Your task to perform on an android device: Show me popular videos on Youtube Image 0: 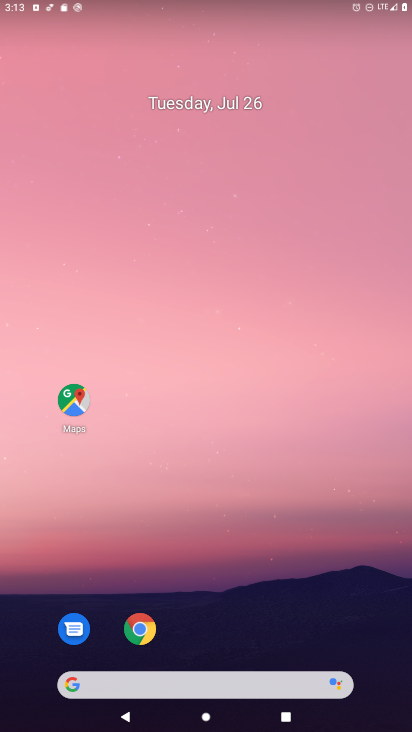
Step 0: drag from (385, 691) to (351, 90)
Your task to perform on an android device: Show me popular videos on Youtube Image 1: 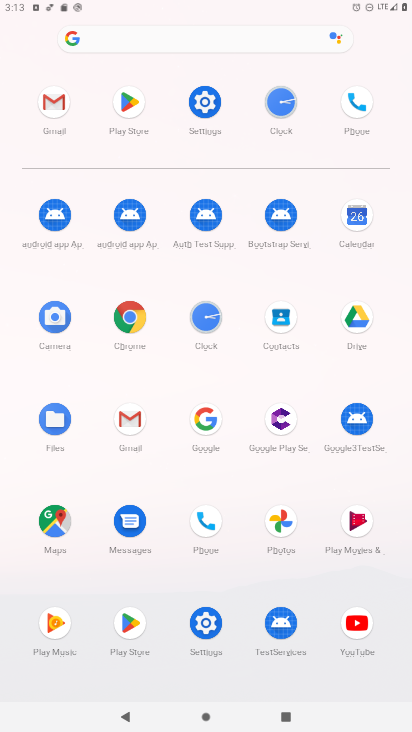
Step 1: click (357, 623)
Your task to perform on an android device: Show me popular videos on Youtube Image 2: 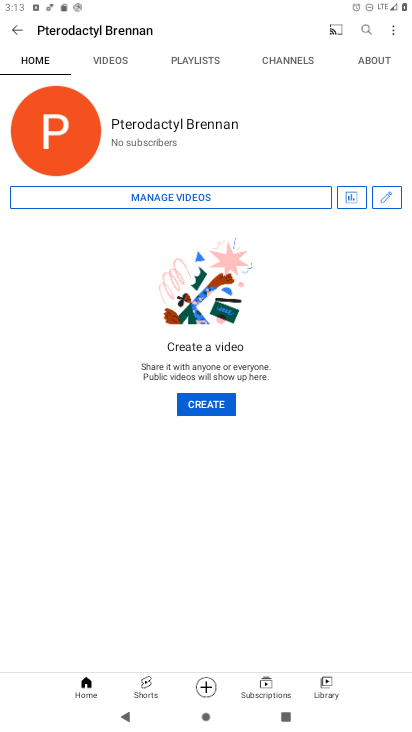
Step 2: click (85, 693)
Your task to perform on an android device: Show me popular videos on Youtube Image 3: 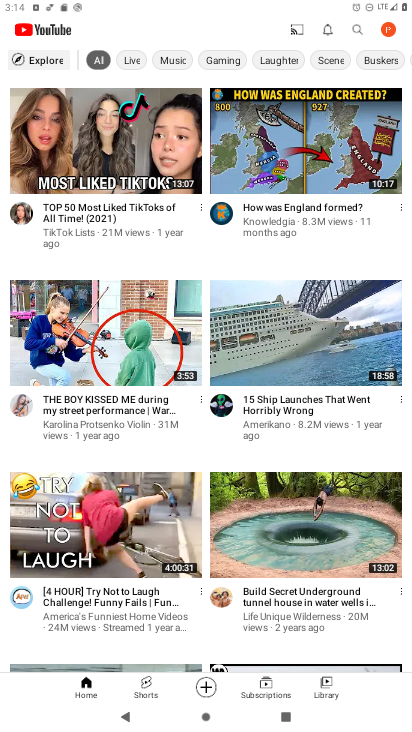
Step 3: click (38, 59)
Your task to perform on an android device: Show me popular videos on Youtube Image 4: 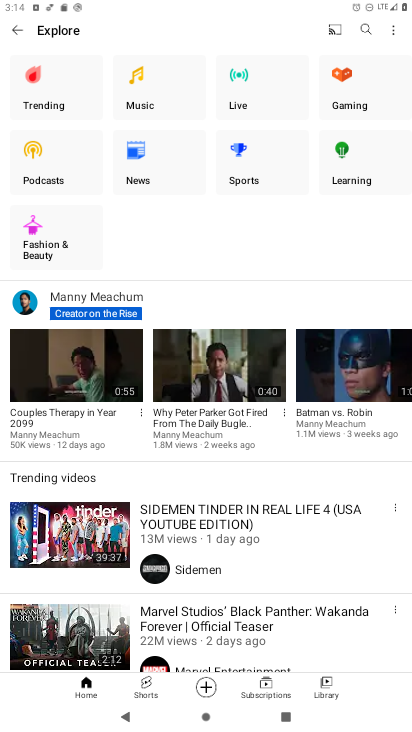
Step 4: click (32, 81)
Your task to perform on an android device: Show me popular videos on Youtube Image 5: 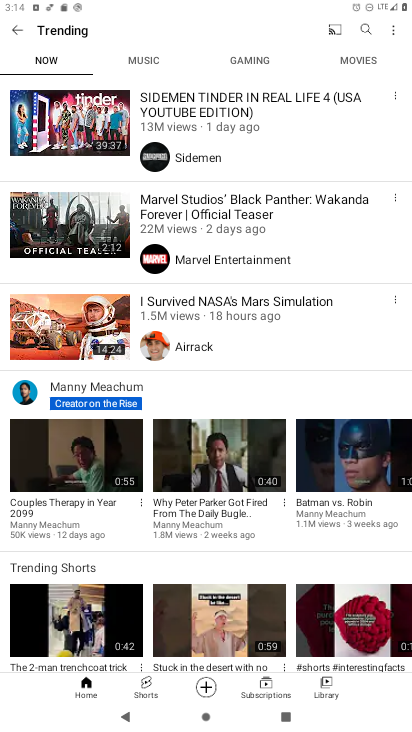
Step 5: task complete